Your task to perform on an android device: Go to Google Image 0: 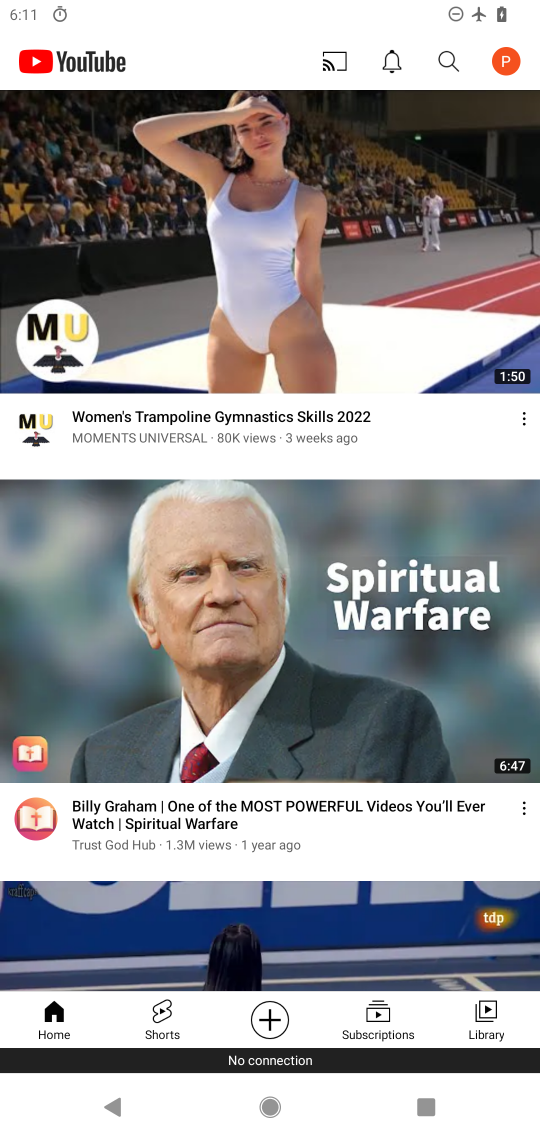
Step 0: press home button
Your task to perform on an android device: Go to Google Image 1: 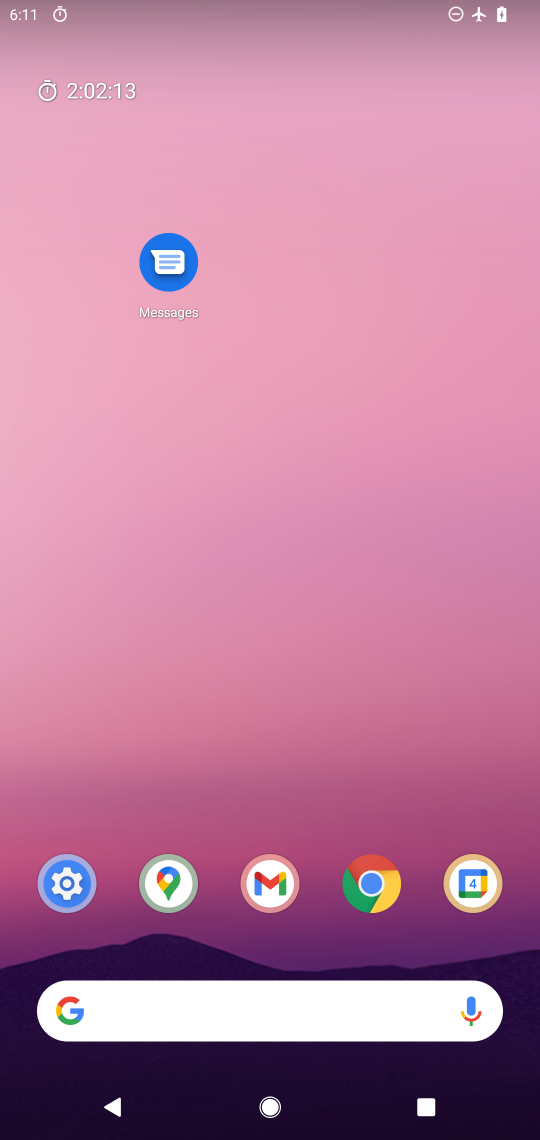
Step 1: drag from (316, 958) to (314, 142)
Your task to perform on an android device: Go to Google Image 2: 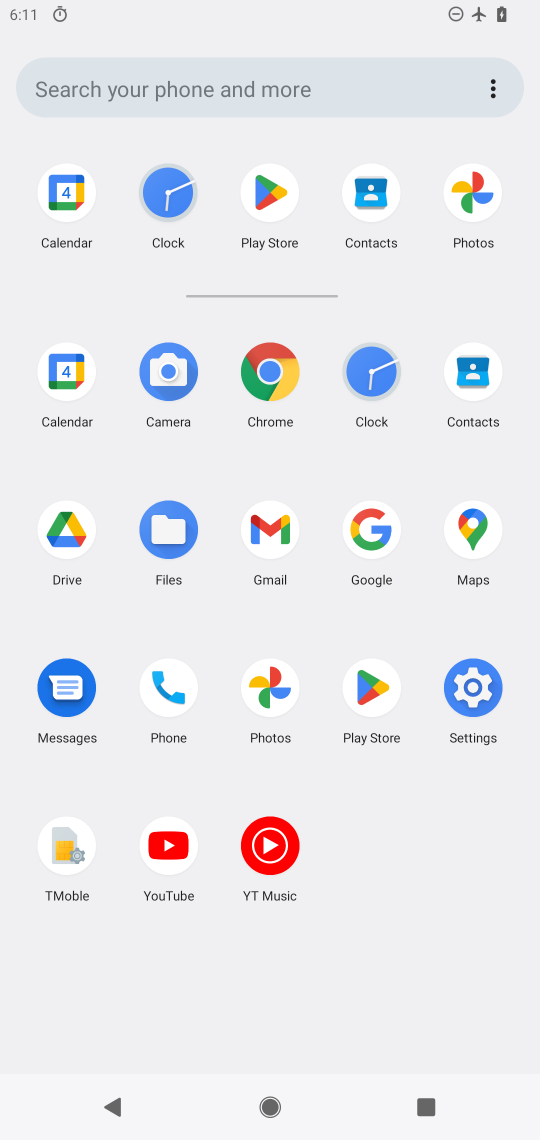
Step 2: click (361, 515)
Your task to perform on an android device: Go to Google Image 3: 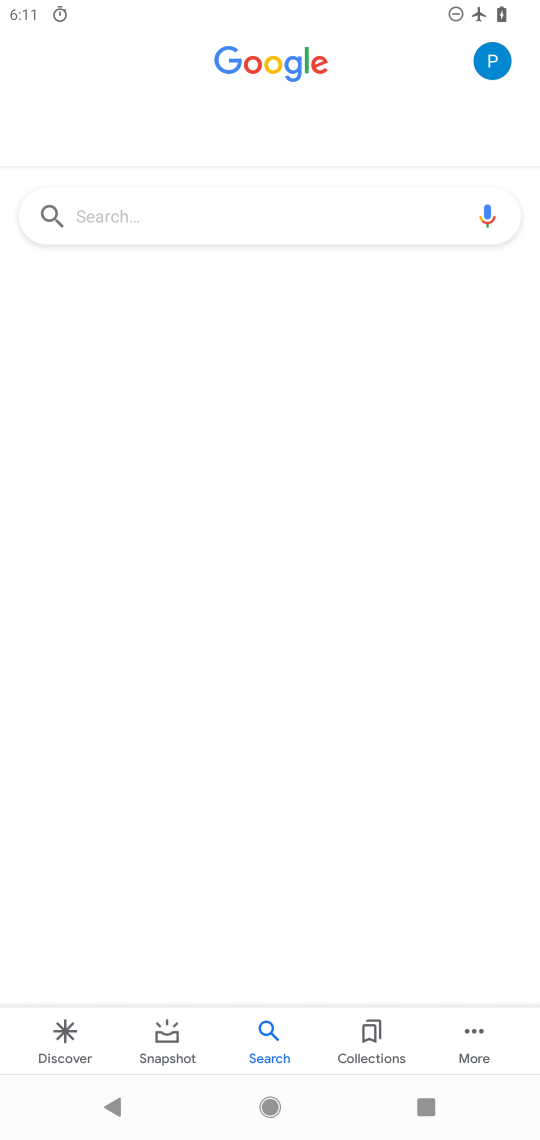
Step 3: task complete